Your task to perform on an android device: What's the weather? Image 0: 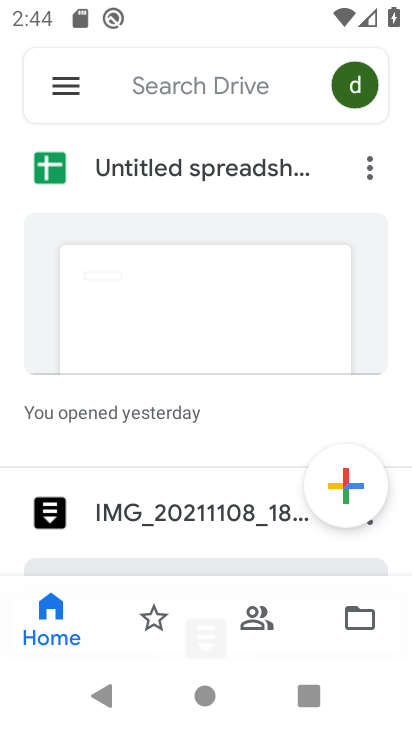
Step 0: press home button
Your task to perform on an android device: What's the weather? Image 1: 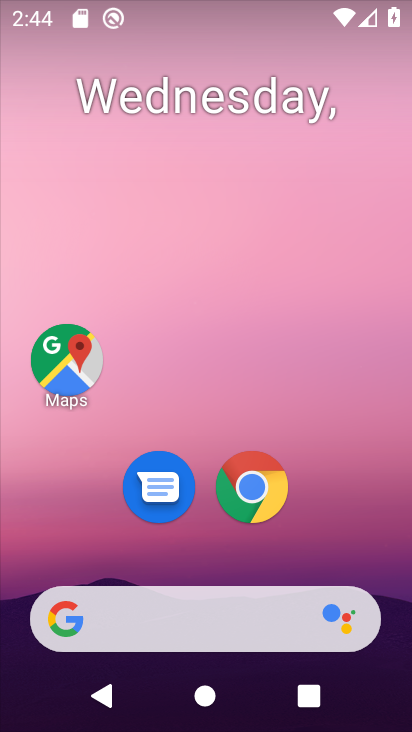
Step 1: click (255, 618)
Your task to perform on an android device: What's the weather? Image 2: 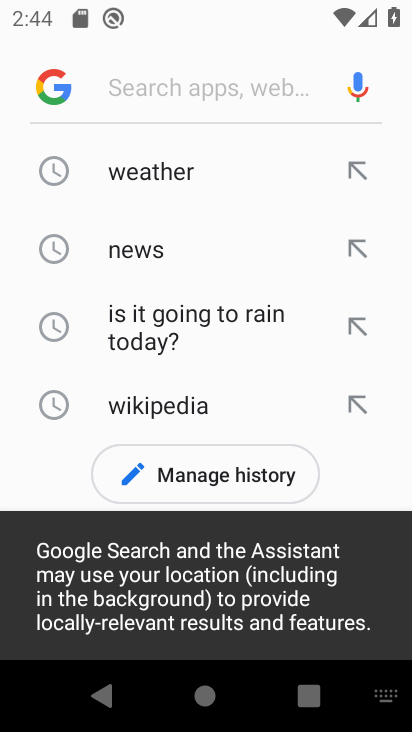
Step 2: click (197, 162)
Your task to perform on an android device: What's the weather? Image 3: 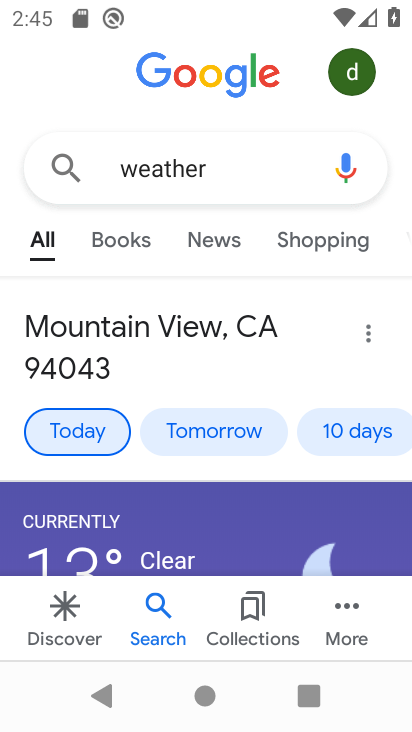
Step 3: task complete